Your task to perform on an android device: uninstall "Google Play Music" Image 0: 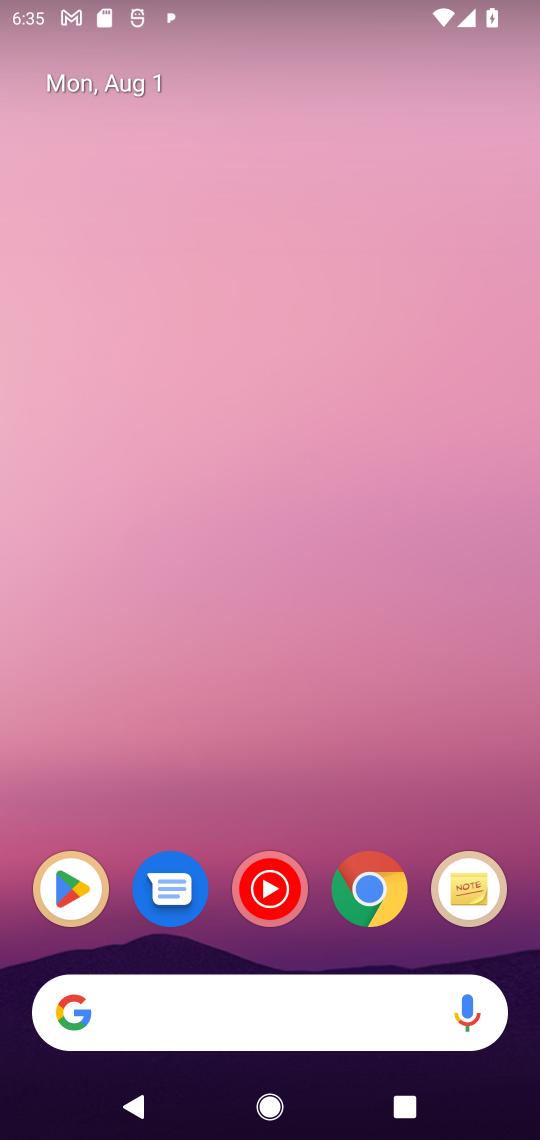
Step 0: drag from (313, 1013) to (197, 138)
Your task to perform on an android device: uninstall "Google Play Music" Image 1: 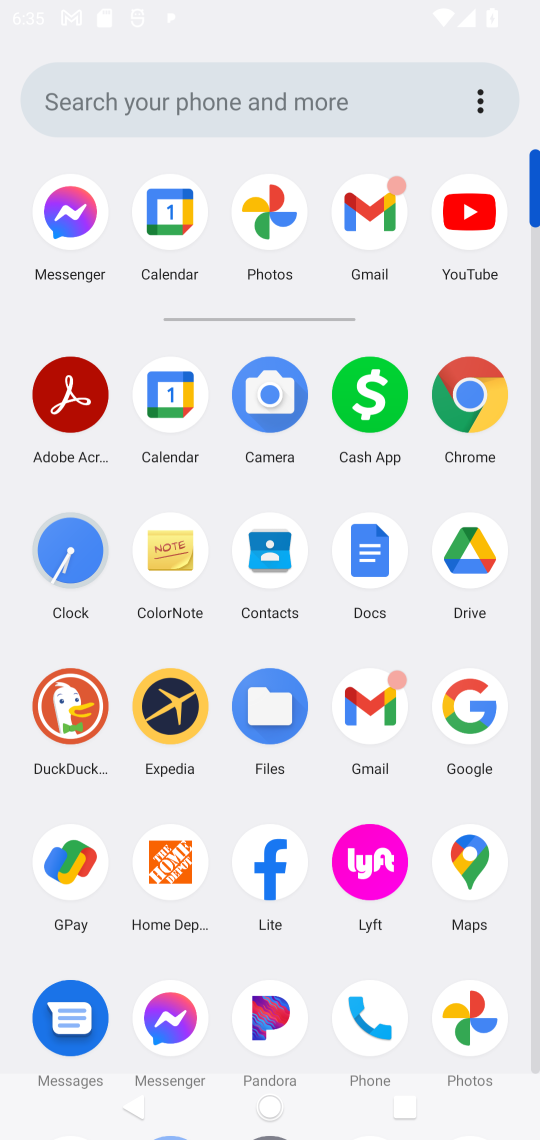
Step 1: drag from (336, 773) to (267, 155)
Your task to perform on an android device: uninstall "Google Play Music" Image 2: 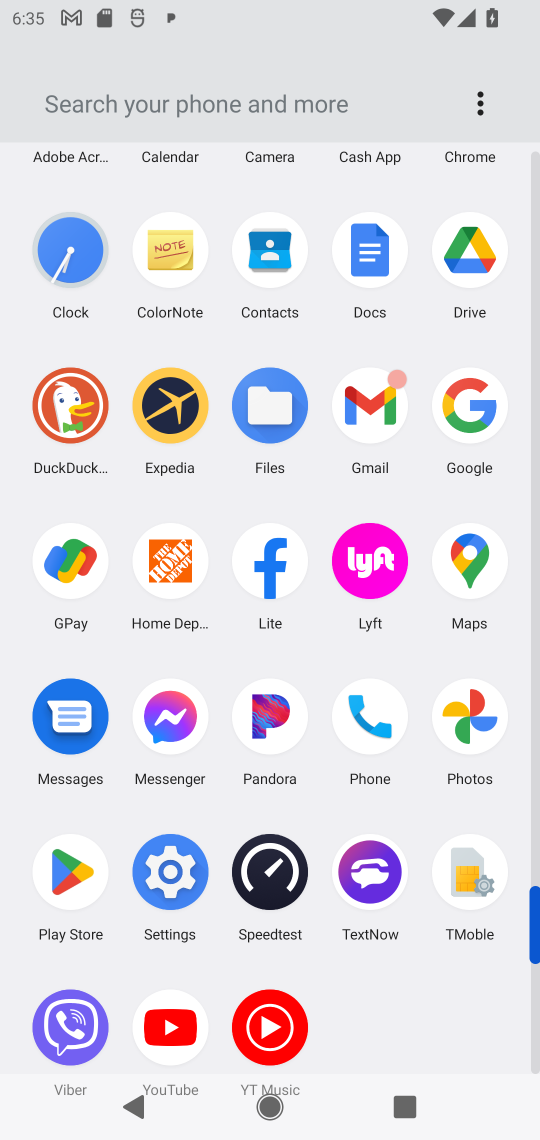
Step 2: click (69, 881)
Your task to perform on an android device: uninstall "Google Play Music" Image 3: 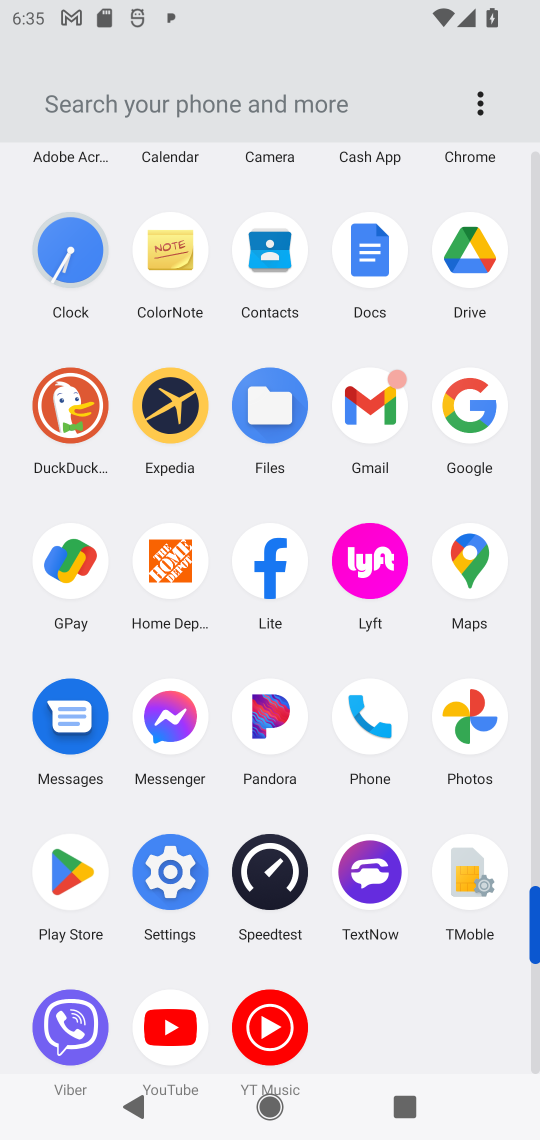
Step 3: click (69, 881)
Your task to perform on an android device: uninstall "Google Play Music" Image 4: 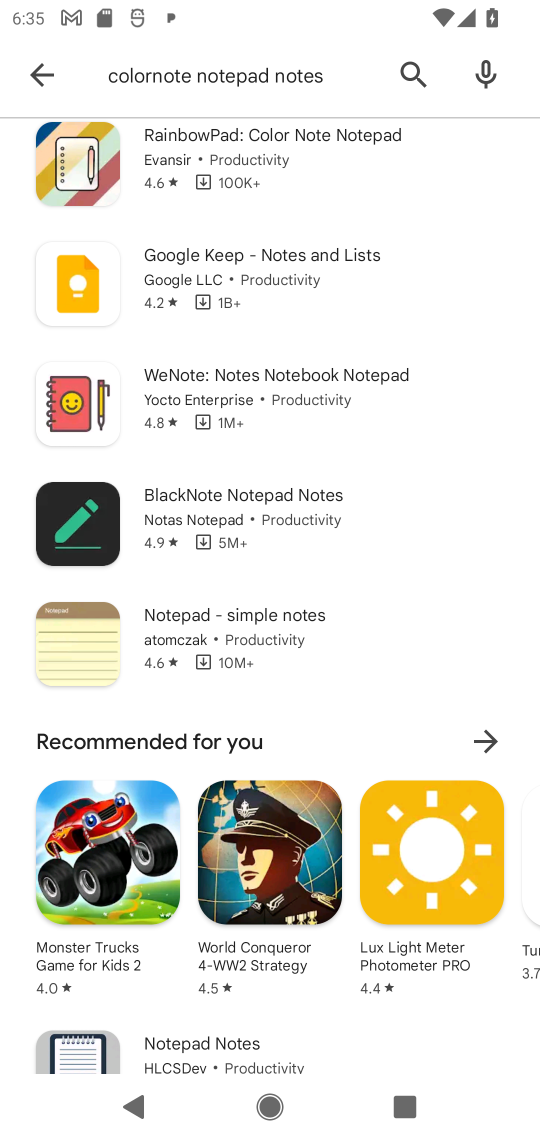
Step 4: click (73, 870)
Your task to perform on an android device: uninstall "Google Play Music" Image 5: 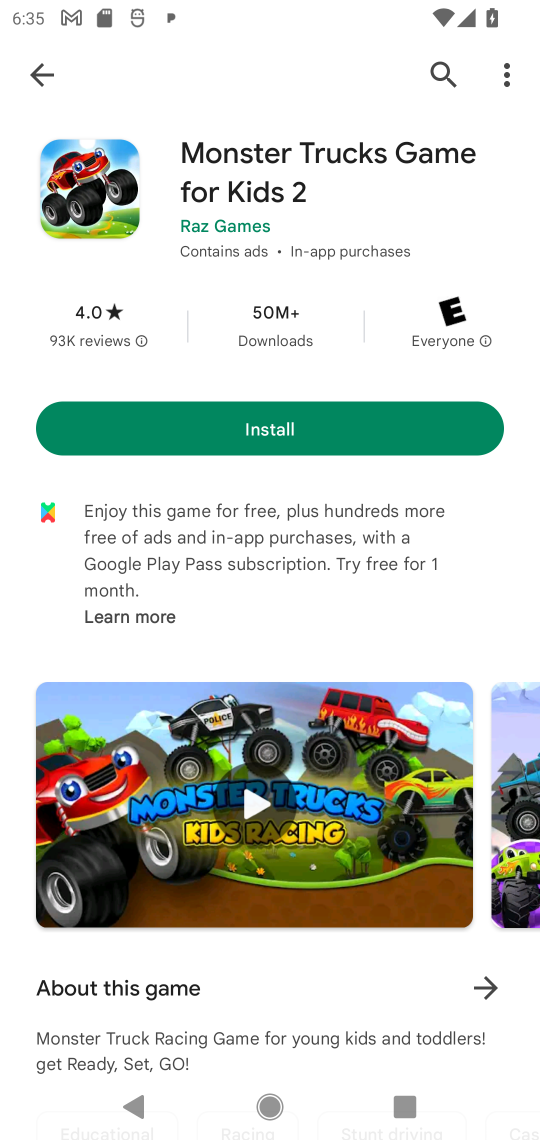
Step 5: click (49, 74)
Your task to perform on an android device: uninstall "Google Play Music" Image 6: 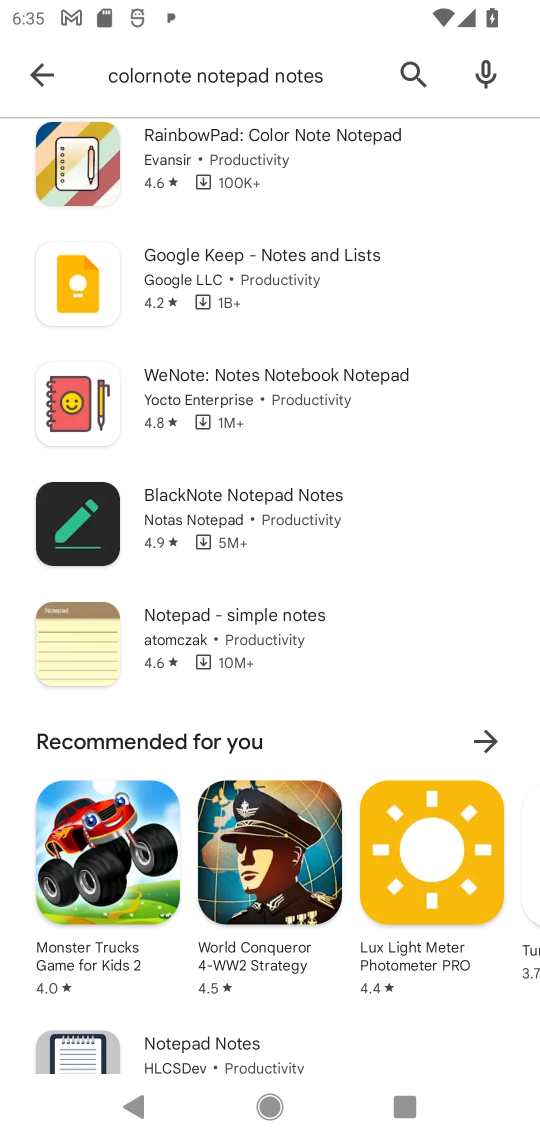
Step 6: click (50, 62)
Your task to perform on an android device: uninstall "Google Play Music" Image 7: 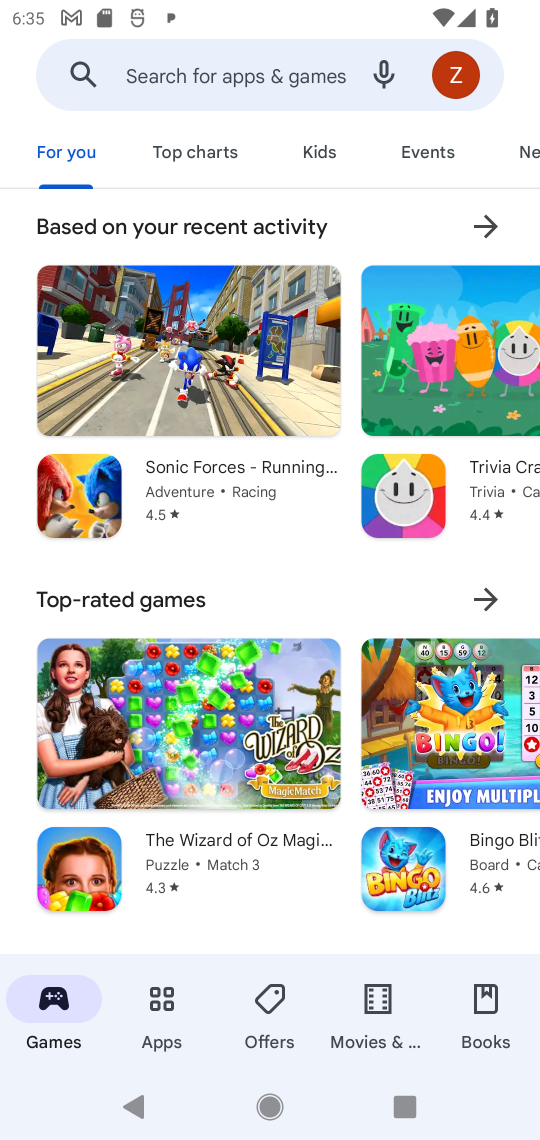
Step 7: click (155, 76)
Your task to perform on an android device: uninstall "Google Play Music" Image 8: 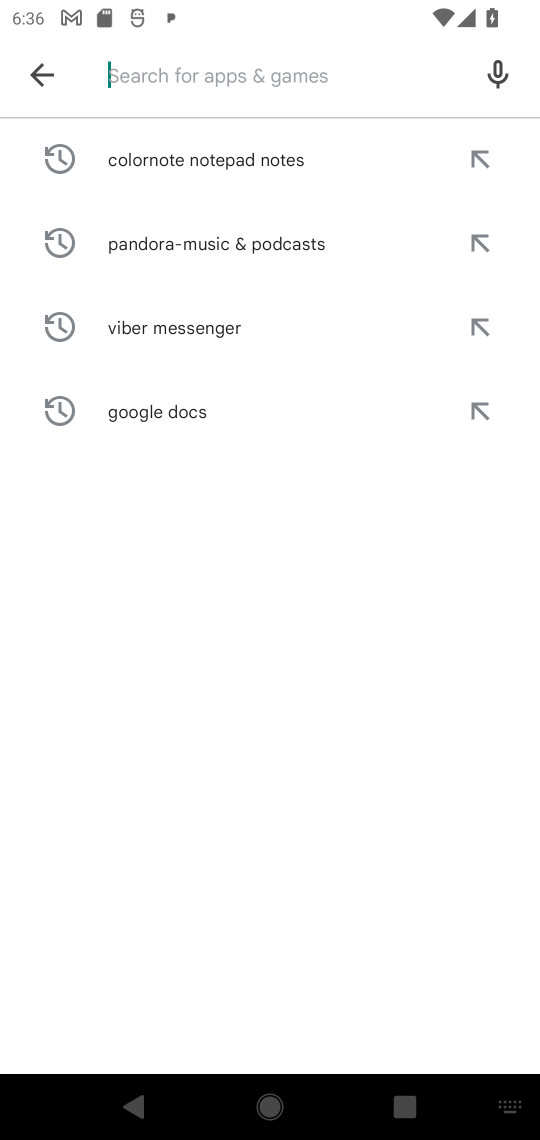
Step 8: type "google play"
Your task to perform on an android device: uninstall "Google Play Music" Image 9: 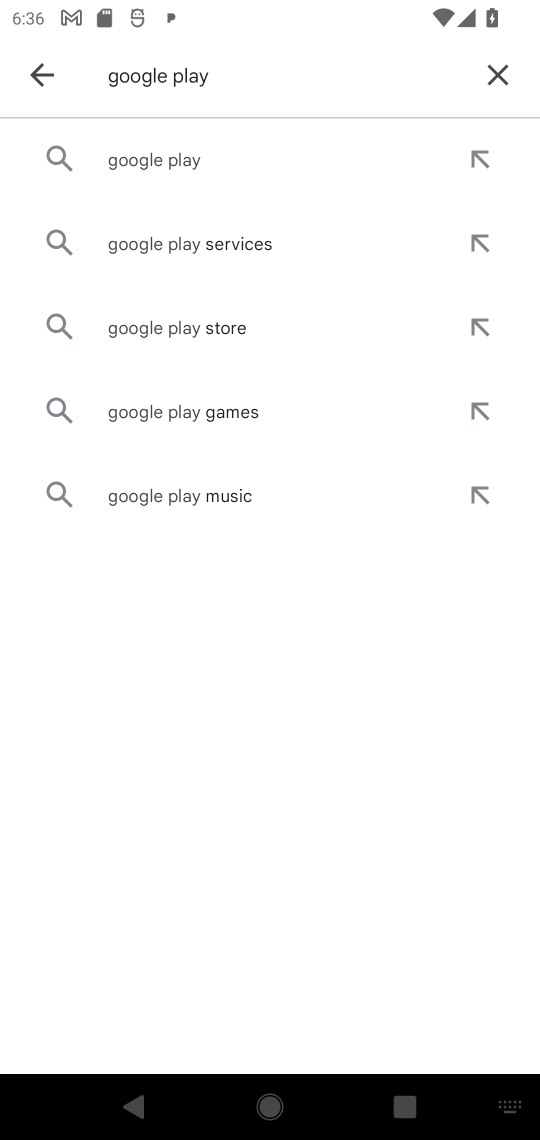
Step 9: click (167, 168)
Your task to perform on an android device: uninstall "Google Play Music" Image 10: 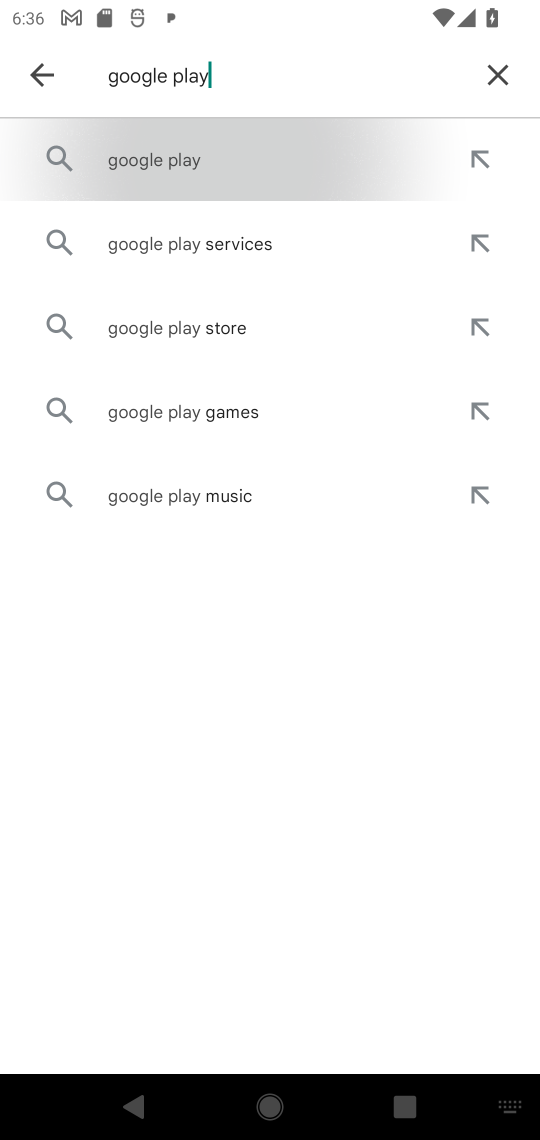
Step 10: click (167, 168)
Your task to perform on an android device: uninstall "Google Play Music" Image 11: 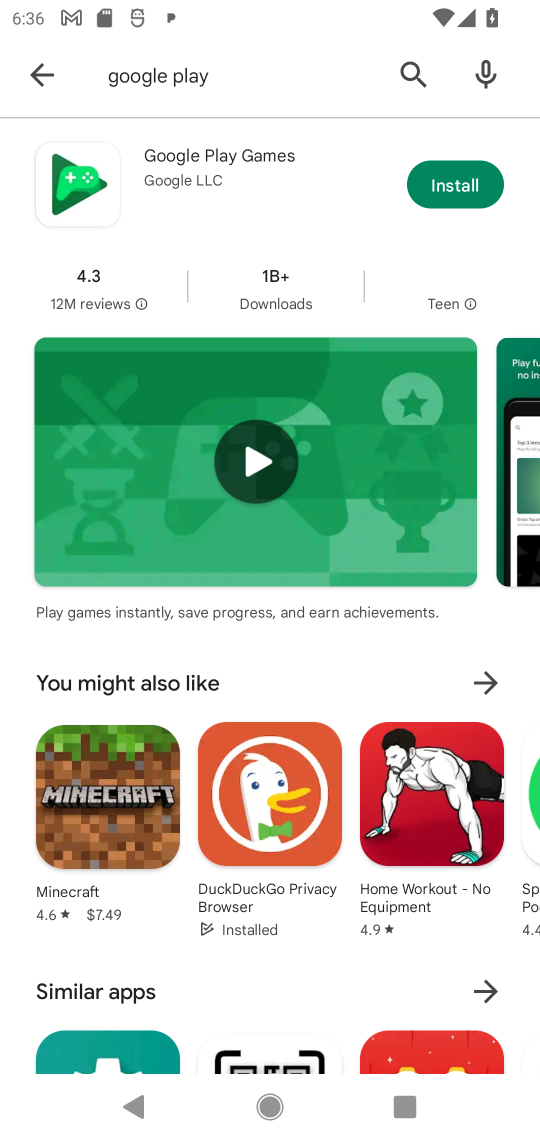
Step 11: task complete